Your task to perform on an android device: Go to calendar. Show me events next week Image 0: 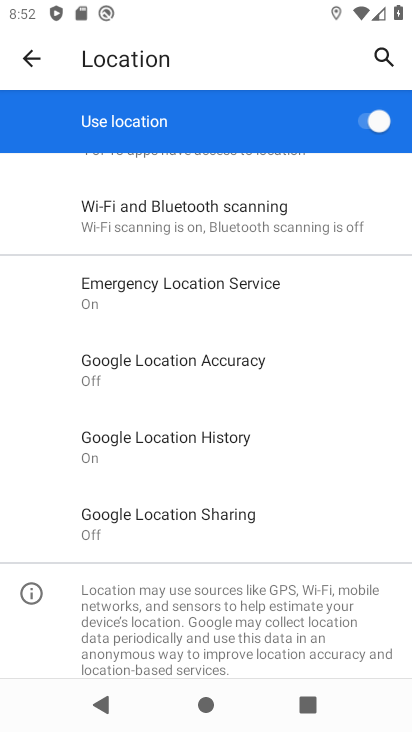
Step 0: press home button
Your task to perform on an android device: Go to calendar. Show me events next week Image 1: 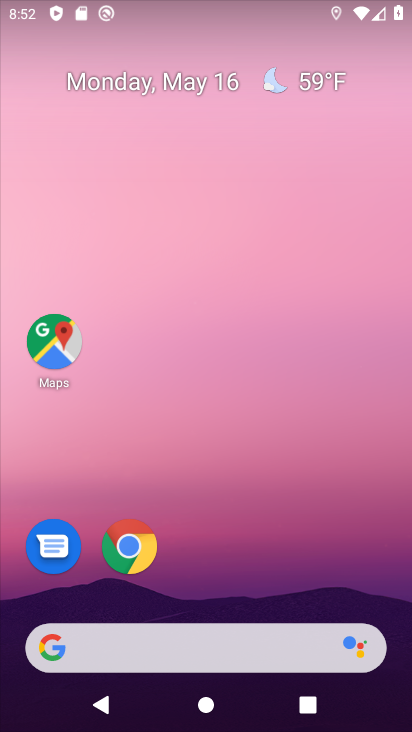
Step 1: drag from (293, 503) to (276, 136)
Your task to perform on an android device: Go to calendar. Show me events next week Image 2: 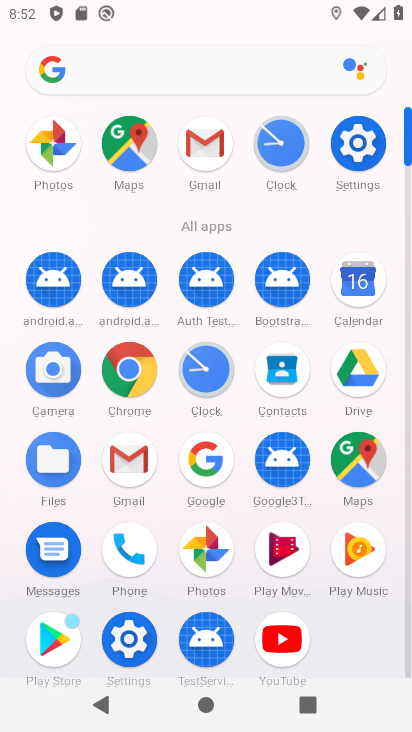
Step 2: click (360, 295)
Your task to perform on an android device: Go to calendar. Show me events next week Image 3: 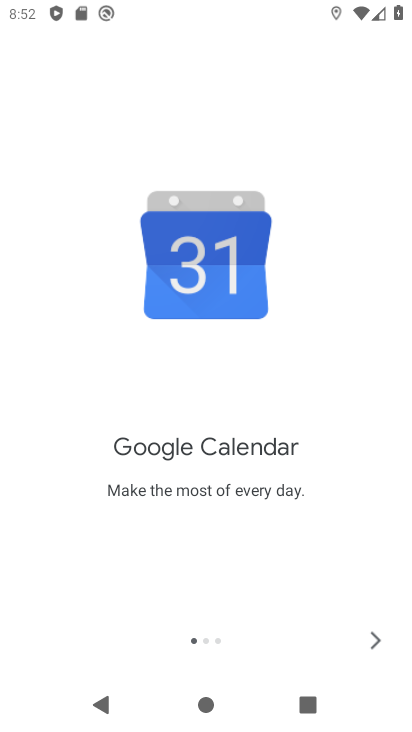
Step 3: click (370, 632)
Your task to perform on an android device: Go to calendar. Show me events next week Image 4: 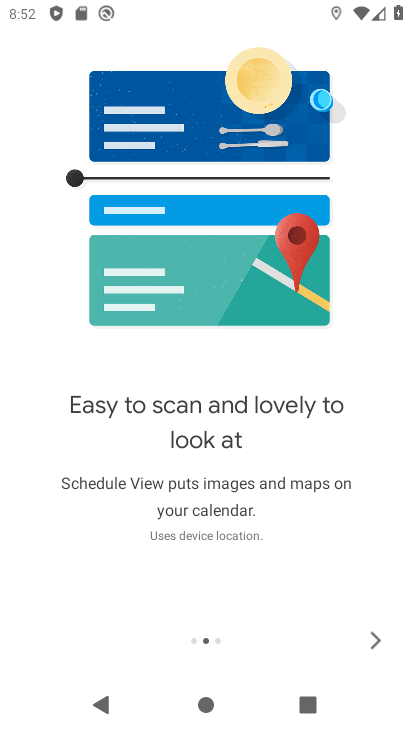
Step 4: click (370, 632)
Your task to perform on an android device: Go to calendar. Show me events next week Image 5: 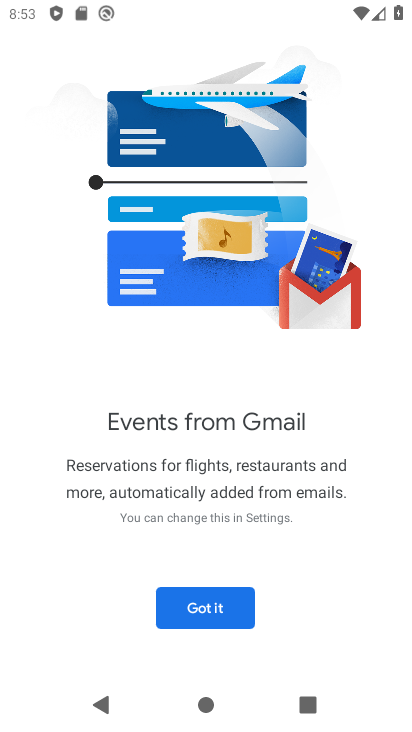
Step 5: click (223, 608)
Your task to perform on an android device: Go to calendar. Show me events next week Image 6: 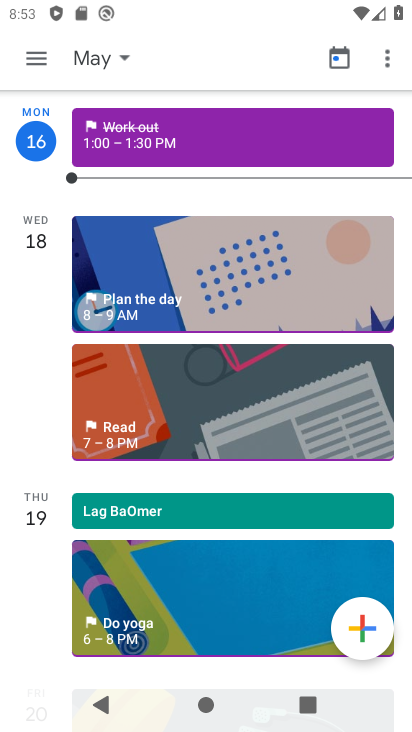
Step 6: click (117, 56)
Your task to perform on an android device: Go to calendar. Show me events next week Image 7: 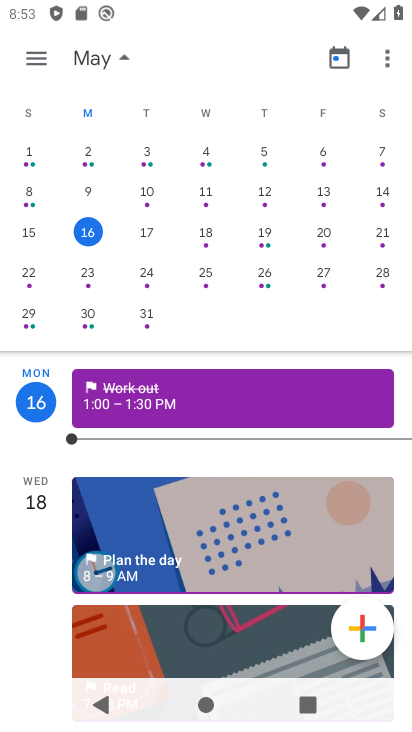
Step 7: click (93, 279)
Your task to perform on an android device: Go to calendar. Show me events next week Image 8: 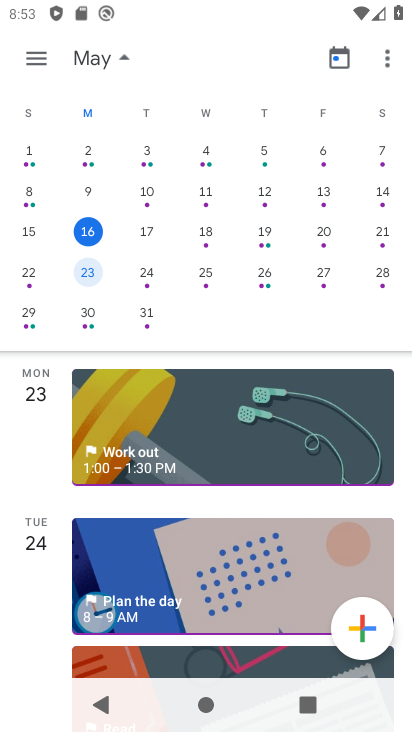
Step 8: task complete